Your task to perform on an android device: find snoozed emails in the gmail app Image 0: 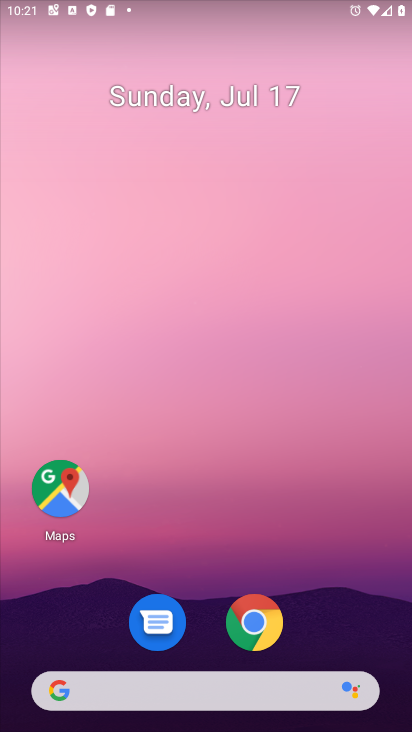
Step 0: drag from (264, 714) to (380, 46)
Your task to perform on an android device: find snoozed emails in the gmail app Image 1: 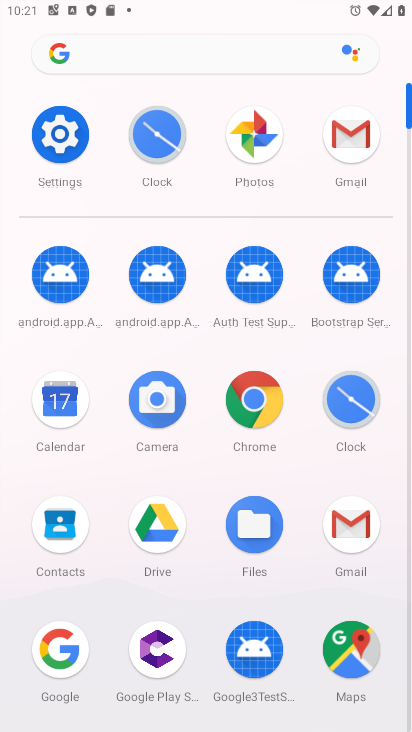
Step 1: click (358, 131)
Your task to perform on an android device: find snoozed emails in the gmail app Image 2: 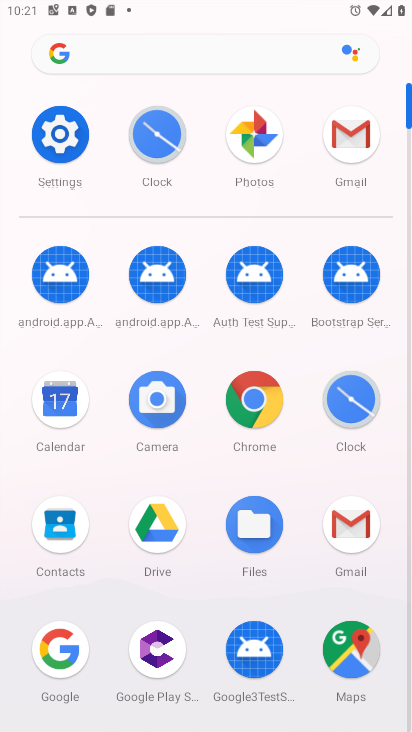
Step 2: click (358, 131)
Your task to perform on an android device: find snoozed emails in the gmail app Image 3: 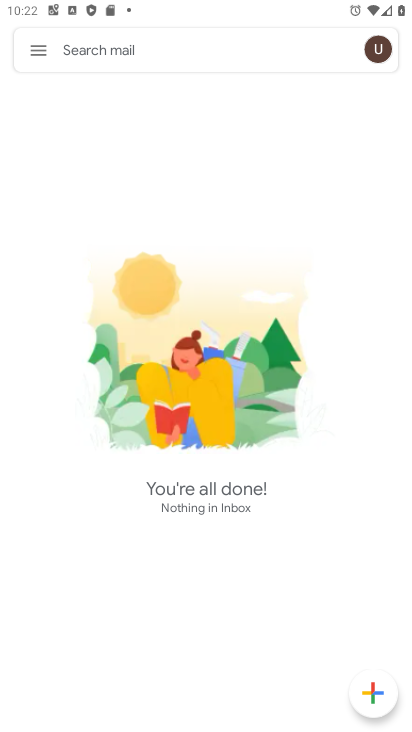
Step 3: task complete